Your task to perform on an android device: Open battery settings Image 0: 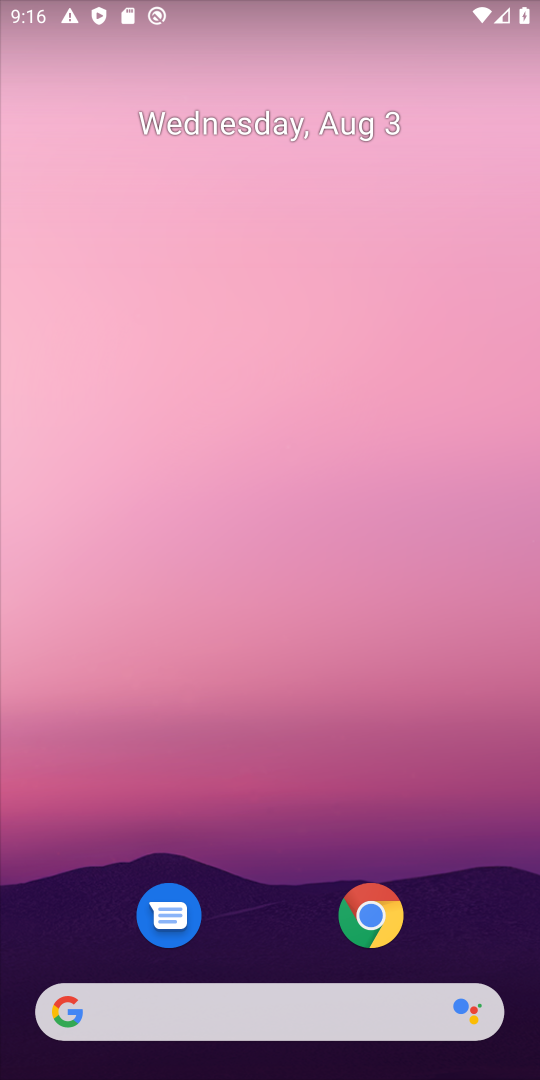
Step 0: drag from (227, 967) to (421, 346)
Your task to perform on an android device: Open battery settings Image 1: 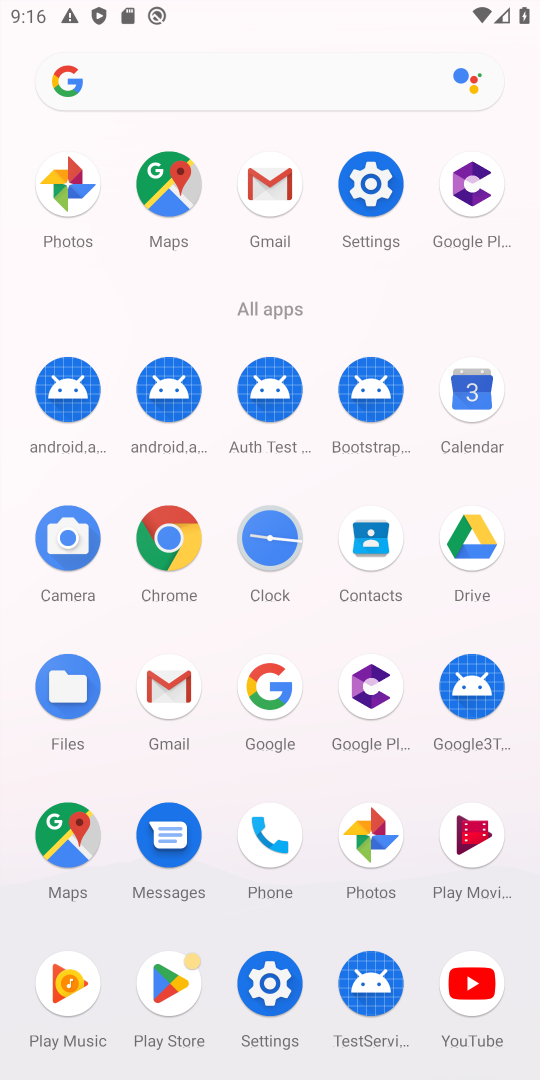
Step 1: click (356, 161)
Your task to perform on an android device: Open battery settings Image 2: 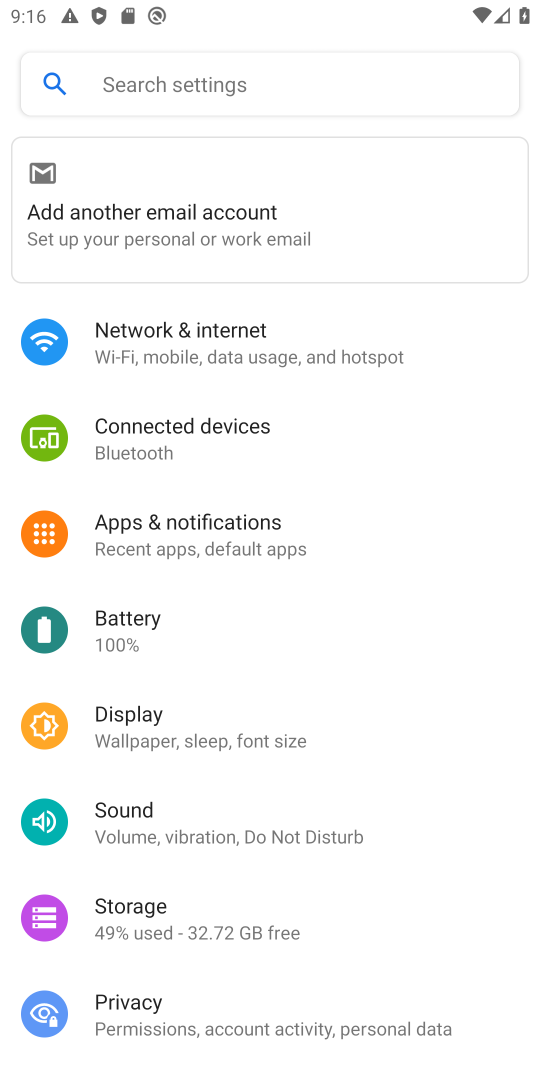
Step 2: click (115, 626)
Your task to perform on an android device: Open battery settings Image 3: 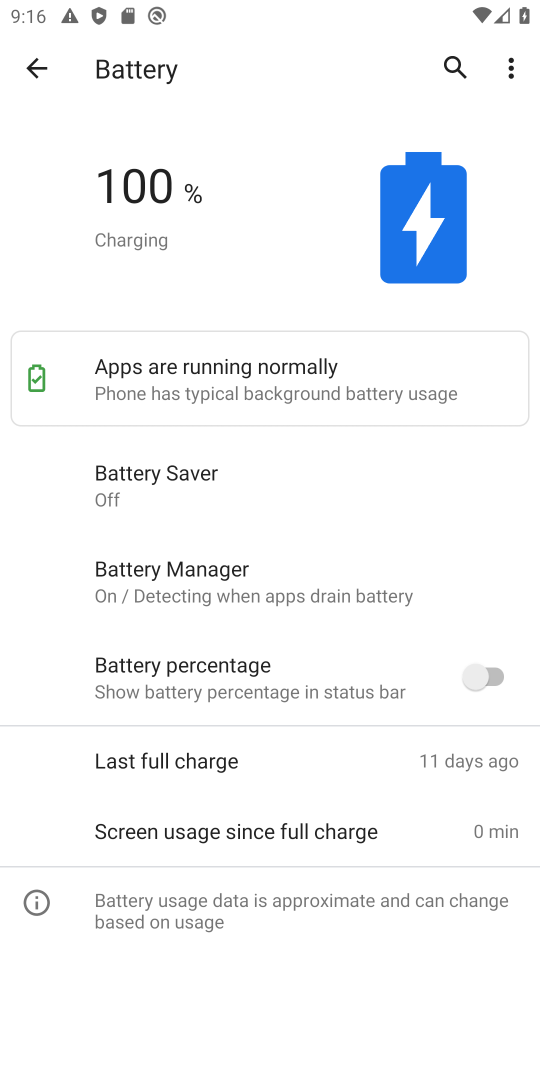
Step 3: task complete